Your task to perform on an android device: Go to notification settings Image 0: 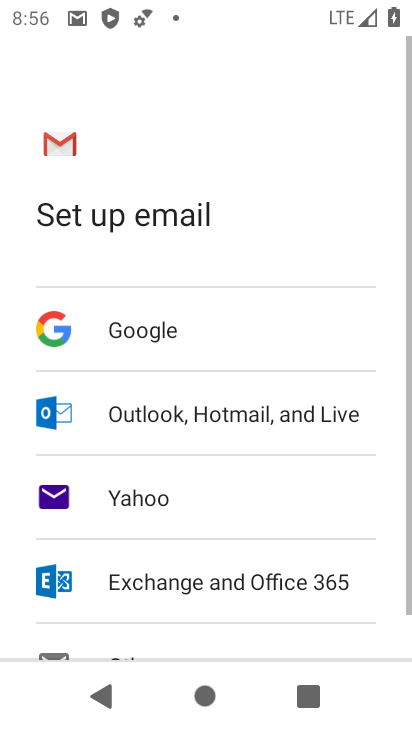
Step 0: press back button
Your task to perform on an android device: Go to notification settings Image 1: 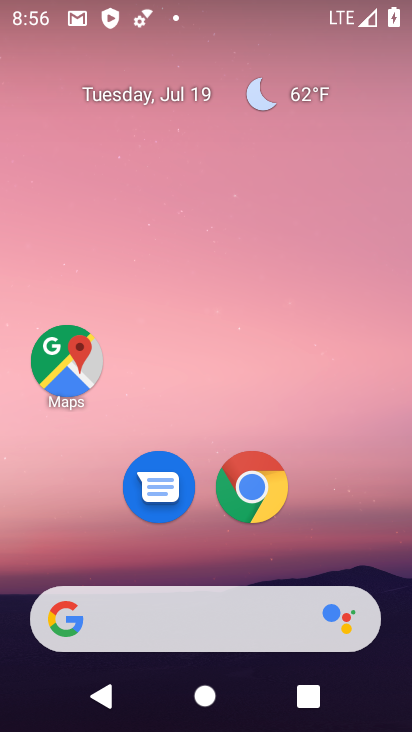
Step 1: drag from (200, 589) to (287, 21)
Your task to perform on an android device: Go to notification settings Image 2: 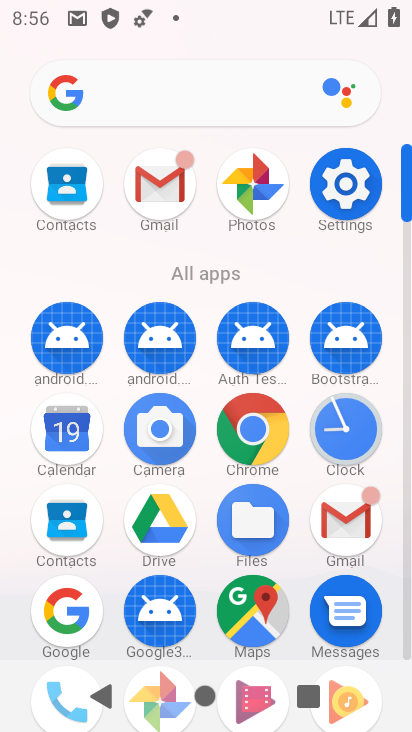
Step 2: click (346, 182)
Your task to perform on an android device: Go to notification settings Image 3: 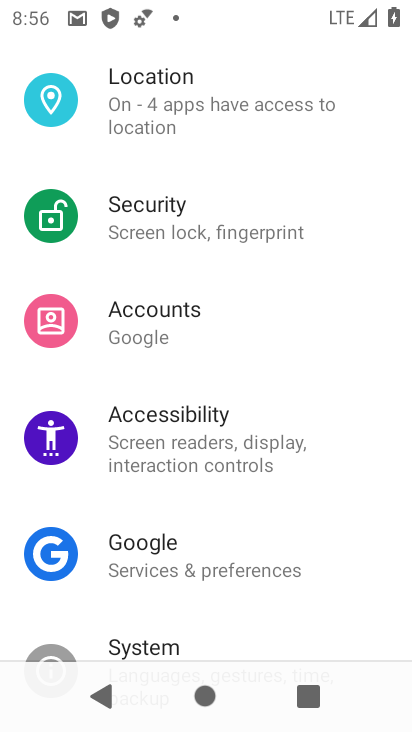
Step 3: drag from (226, 257) to (143, 718)
Your task to perform on an android device: Go to notification settings Image 4: 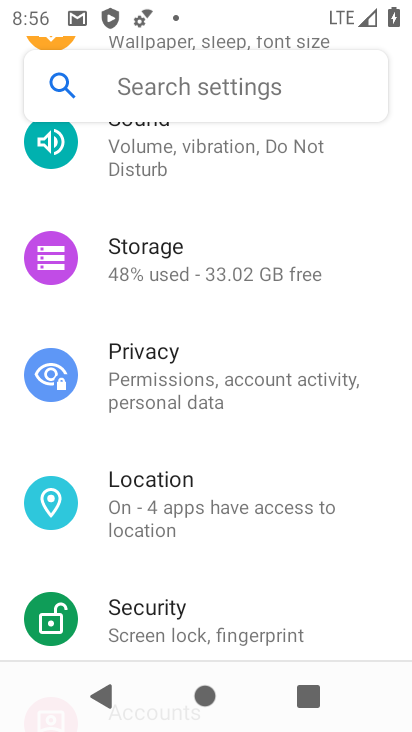
Step 4: drag from (244, 206) to (289, 714)
Your task to perform on an android device: Go to notification settings Image 5: 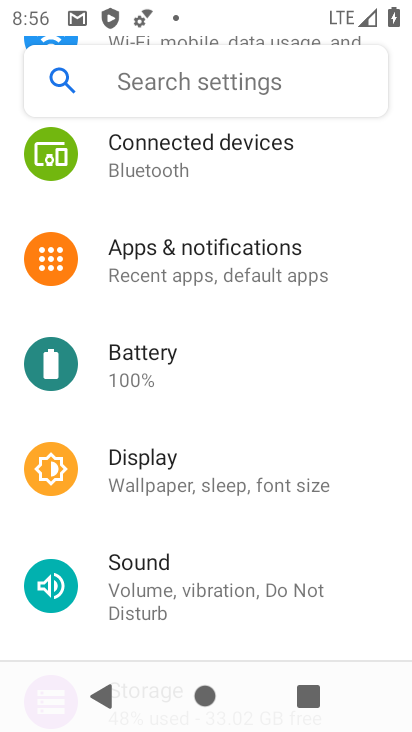
Step 5: click (233, 276)
Your task to perform on an android device: Go to notification settings Image 6: 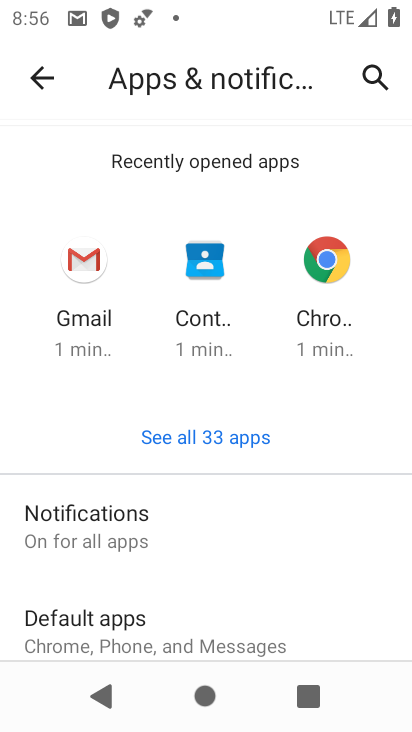
Step 6: task complete